Your task to perform on an android device: clear all cookies in the chrome app Image 0: 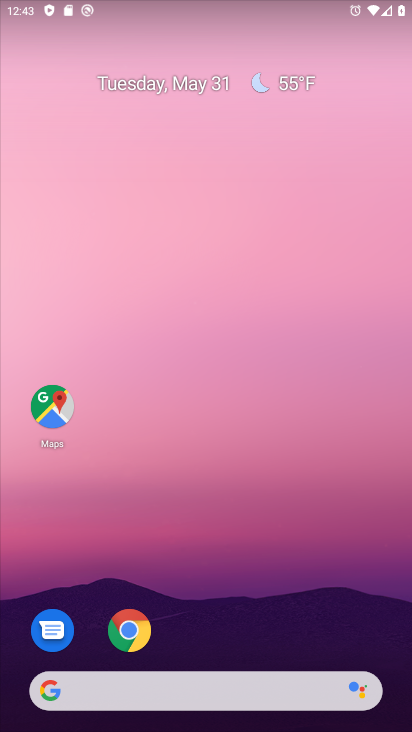
Step 0: drag from (177, 637) to (230, 211)
Your task to perform on an android device: clear all cookies in the chrome app Image 1: 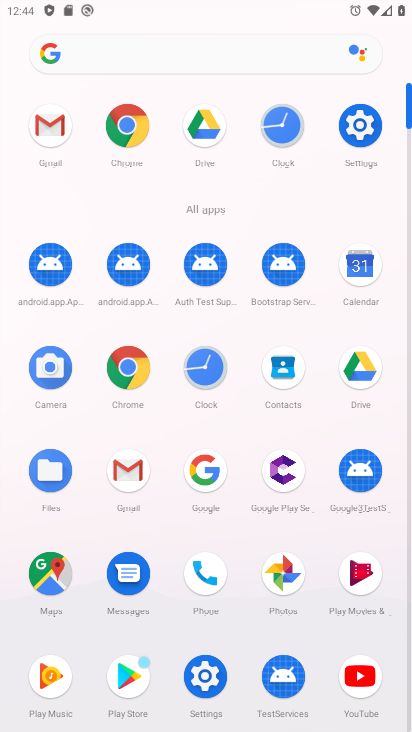
Step 1: click (137, 366)
Your task to perform on an android device: clear all cookies in the chrome app Image 2: 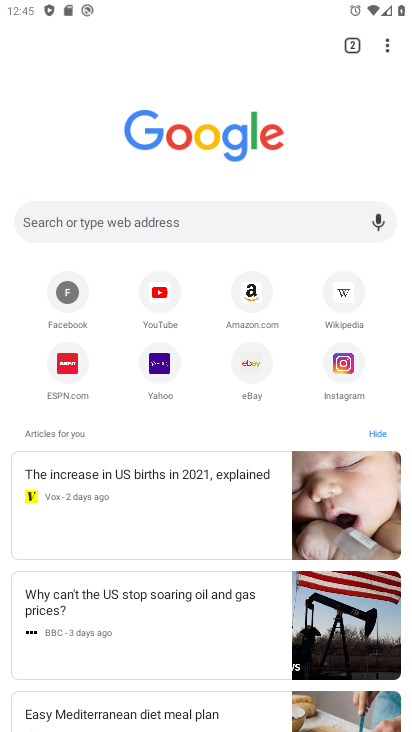
Step 2: click (396, 50)
Your task to perform on an android device: clear all cookies in the chrome app Image 3: 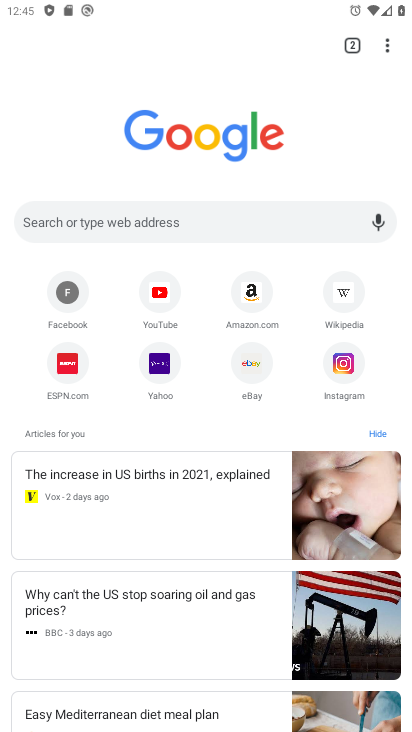
Step 3: click (383, 51)
Your task to perform on an android device: clear all cookies in the chrome app Image 4: 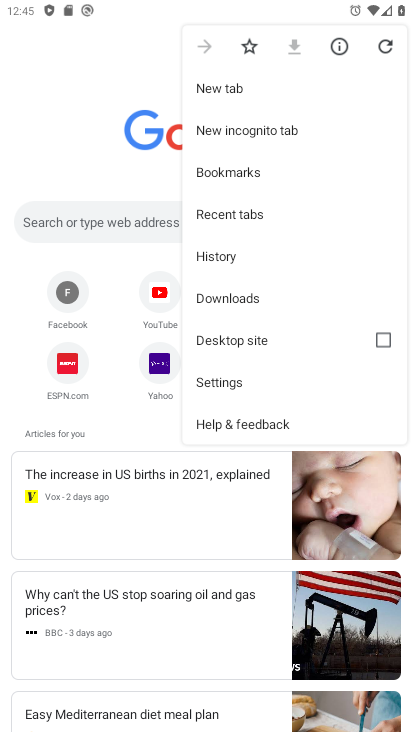
Step 4: click (211, 384)
Your task to perform on an android device: clear all cookies in the chrome app Image 5: 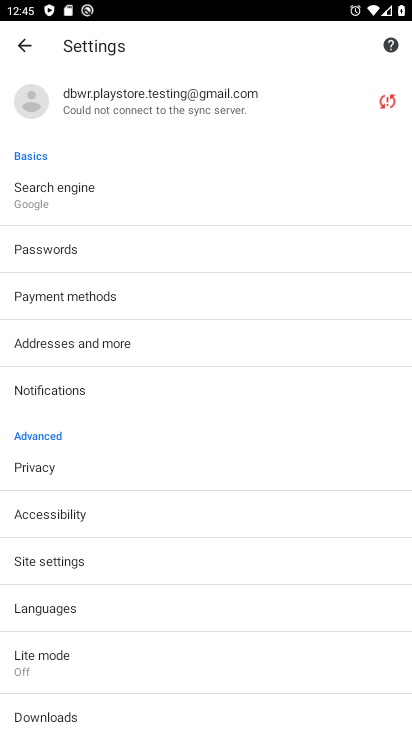
Step 5: click (75, 464)
Your task to perform on an android device: clear all cookies in the chrome app Image 6: 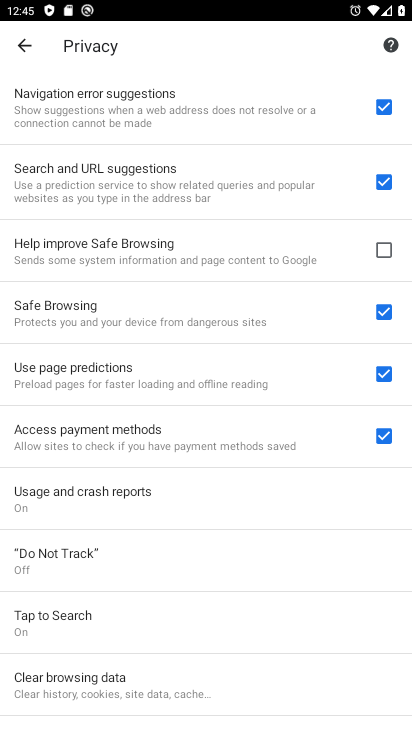
Step 6: click (212, 696)
Your task to perform on an android device: clear all cookies in the chrome app Image 7: 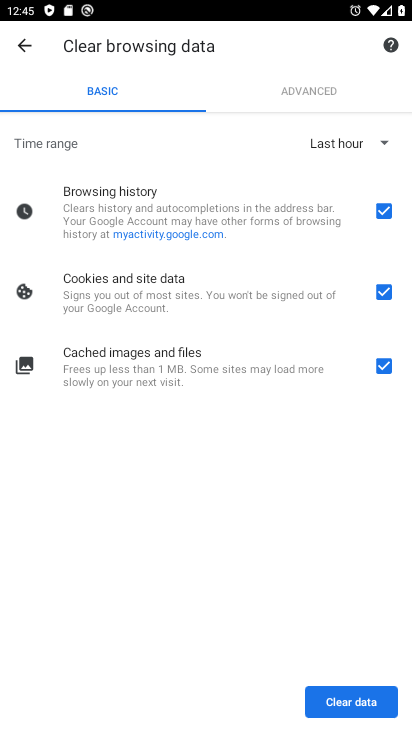
Step 7: click (388, 216)
Your task to perform on an android device: clear all cookies in the chrome app Image 8: 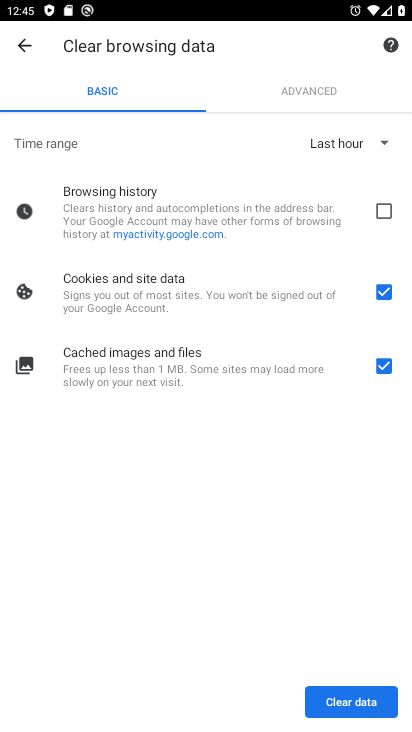
Step 8: click (383, 373)
Your task to perform on an android device: clear all cookies in the chrome app Image 9: 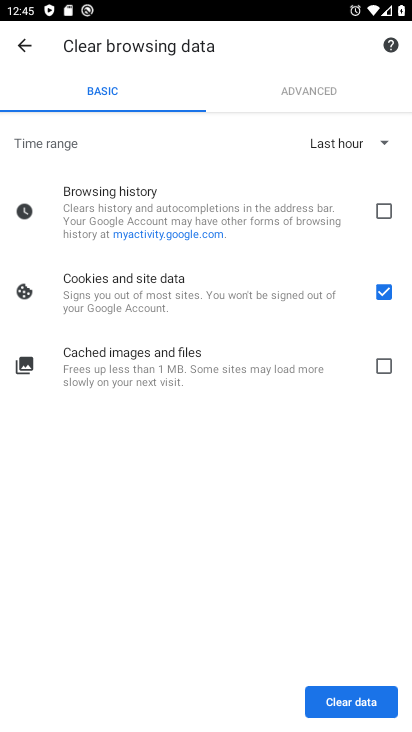
Step 9: click (333, 146)
Your task to perform on an android device: clear all cookies in the chrome app Image 10: 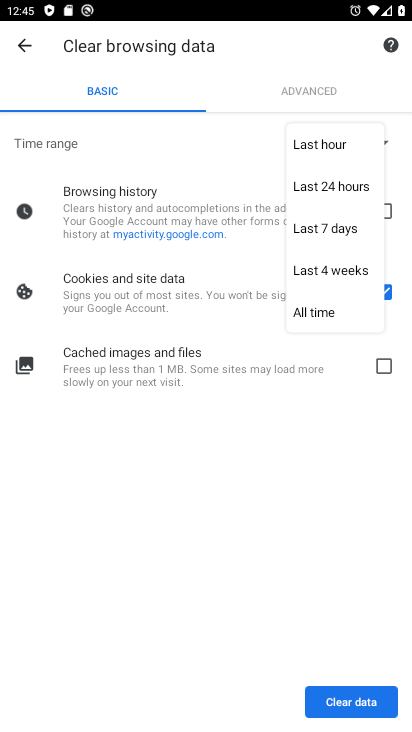
Step 10: click (322, 306)
Your task to perform on an android device: clear all cookies in the chrome app Image 11: 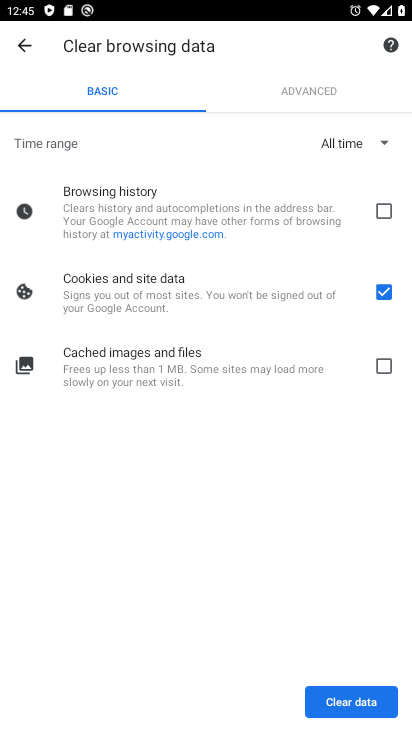
Step 11: click (336, 693)
Your task to perform on an android device: clear all cookies in the chrome app Image 12: 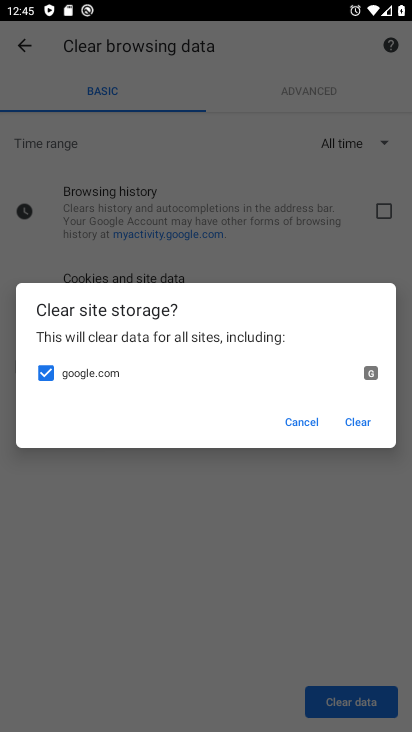
Step 12: click (363, 424)
Your task to perform on an android device: clear all cookies in the chrome app Image 13: 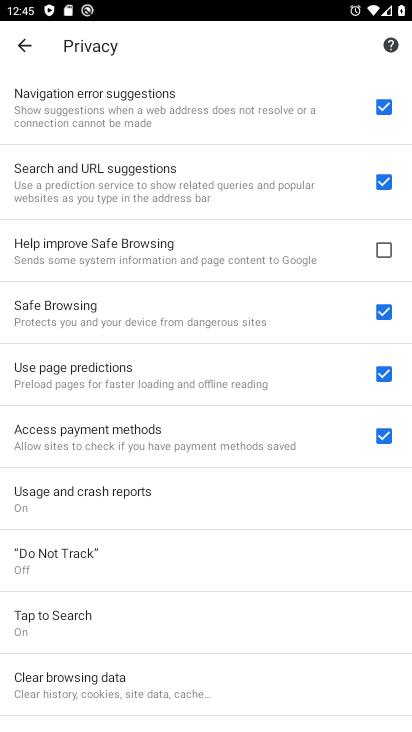
Step 13: task complete